Your task to perform on an android device: Open Youtube and go to "Your channel" Image 0: 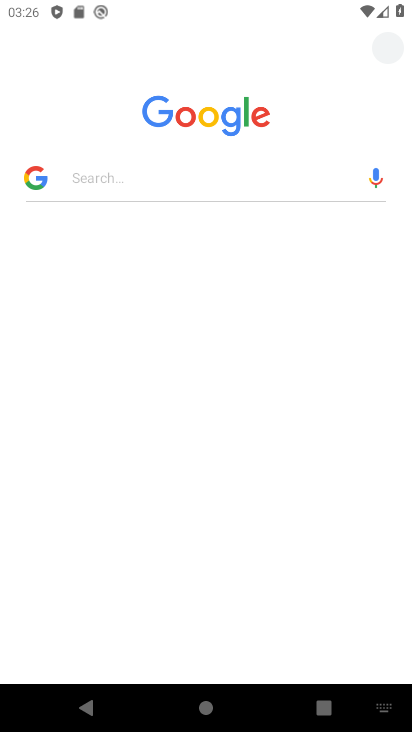
Step 0: press home button
Your task to perform on an android device: Open Youtube and go to "Your channel" Image 1: 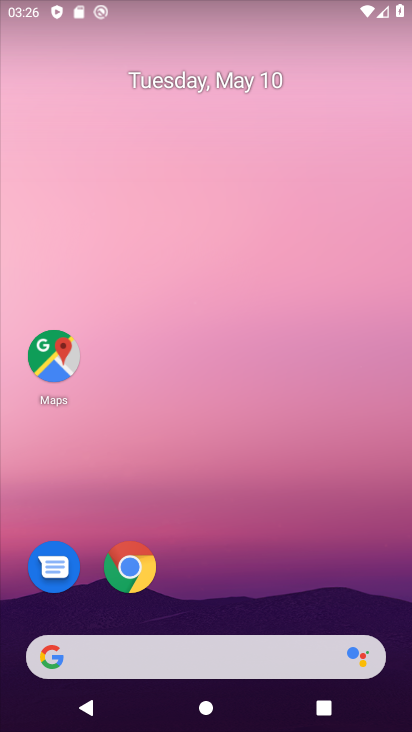
Step 1: click (312, 338)
Your task to perform on an android device: Open Youtube and go to "Your channel" Image 2: 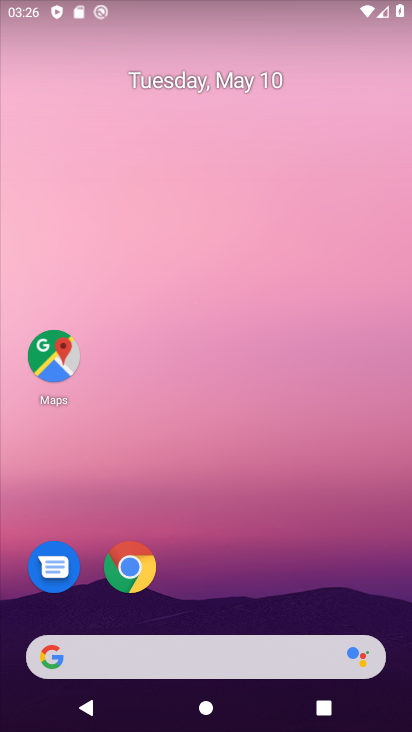
Step 2: drag from (210, 601) to (212, 44)
Your task to perform on an android device: Open Youtube and go to "Your channel" Image 3: 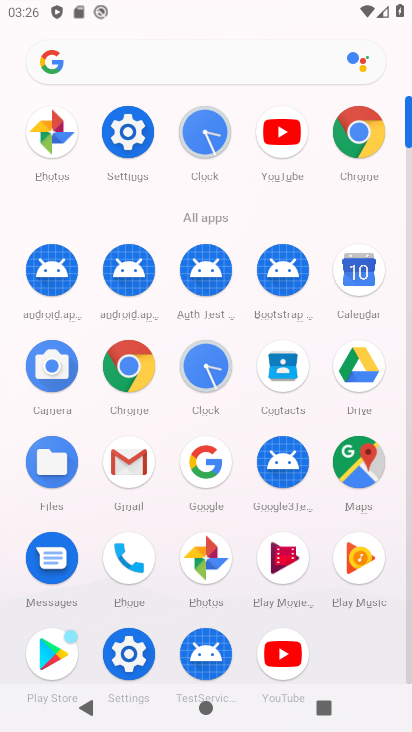
Step 3: click (287, 650)
Your task to perform on an android device: Open Youtube and go to "Your channel" Image 4: 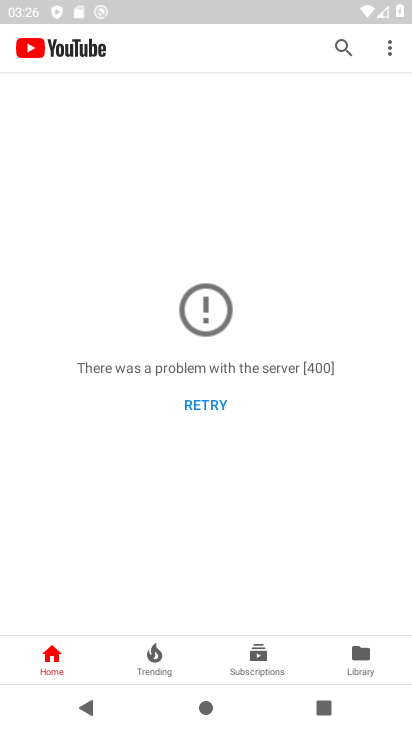
Step 4: task complete